Your task to perform on an android device: Open my contact list Image 0: 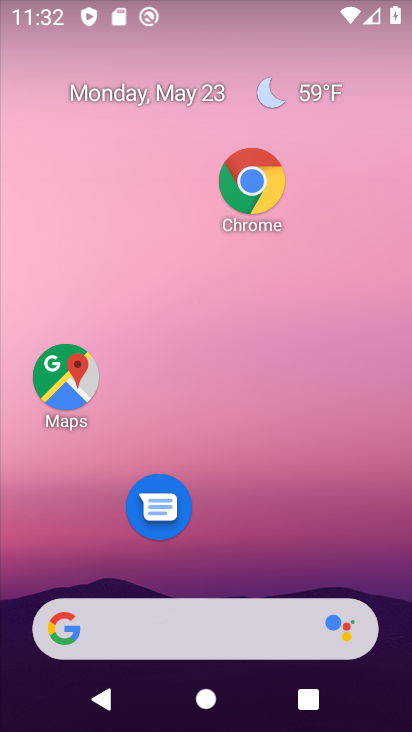
Step 0: drag from (263, 534) to (274, 207)
Your task to perform on an android device: Open my contact list Image 1: 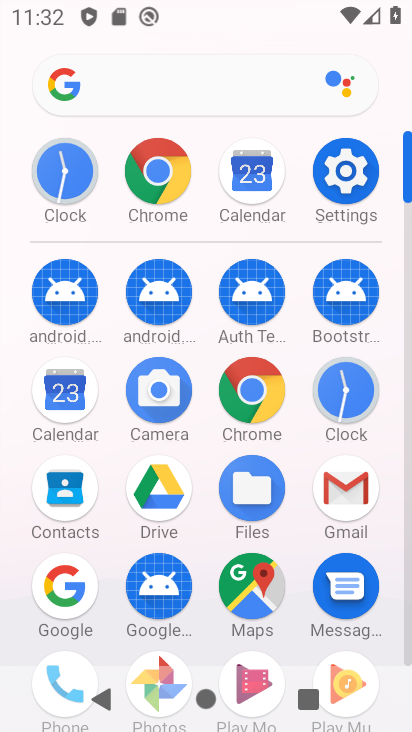
Step 1: drag from (202, 538) to (230, 327)
Your task to perform on an android device: Open my contact list Image 2: 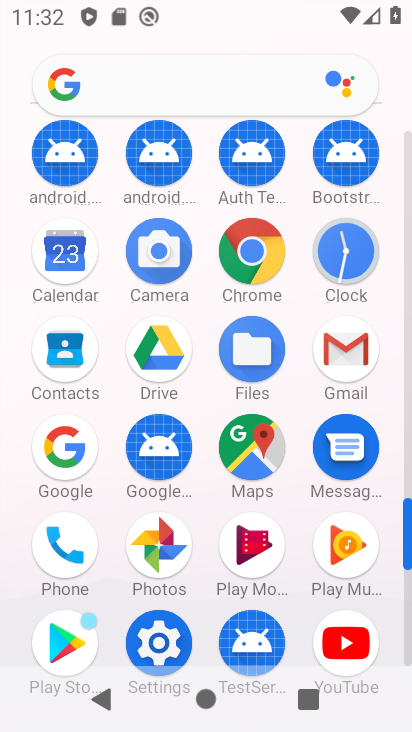
Step 2: click (152, 629)
Your task to perform on an android device: Open my contact list Image 3: 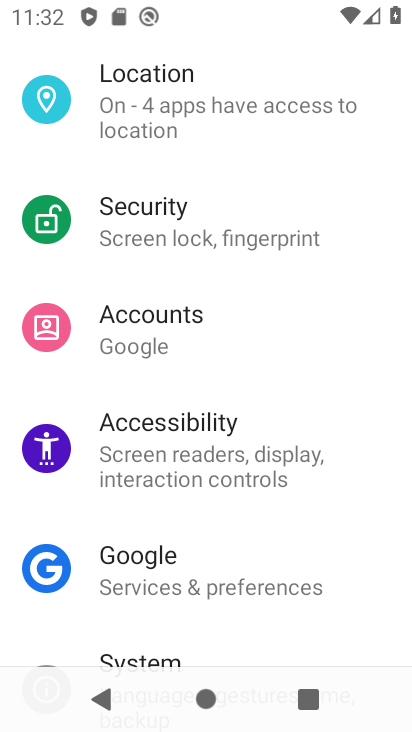
Step 3: press home button
Your task to perform on an android device: Open my contact list Image 4: 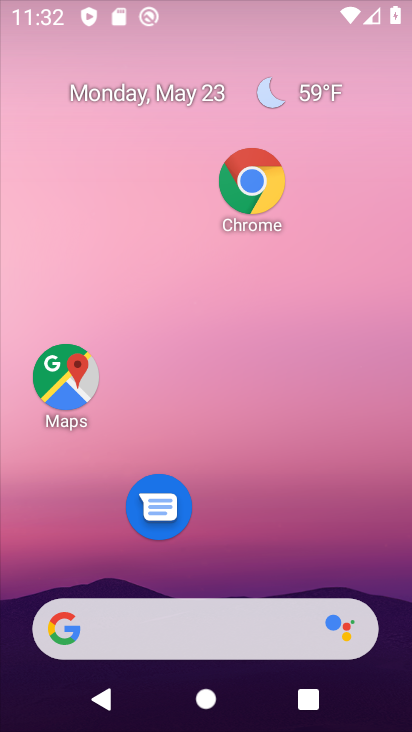
Step 4: drag from (235, 572) to (252, 346)
Your task to perform on an android device: Open my contact list Image 5: 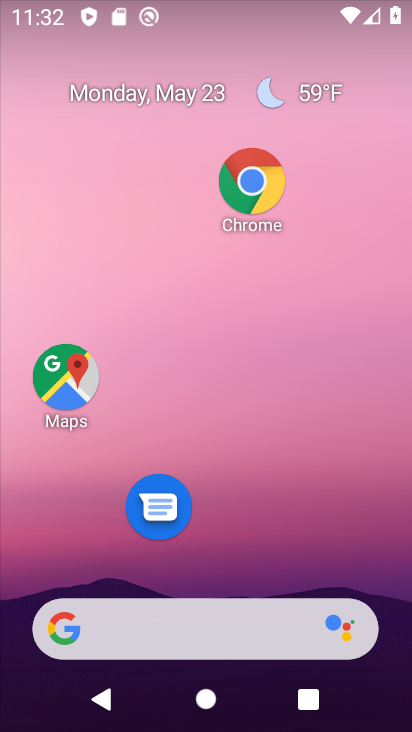
Step 5: drag from (286, 554) to (329, 259)
Your task to perform on an android device: Open my contact list Image 6: 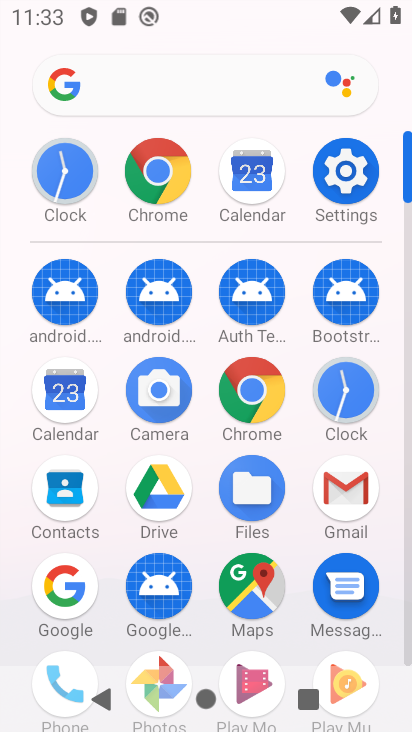
Step 6: drag from (183, 608) to (241, 244)
Your task to perform on an android device: Open my contact list Image 7: 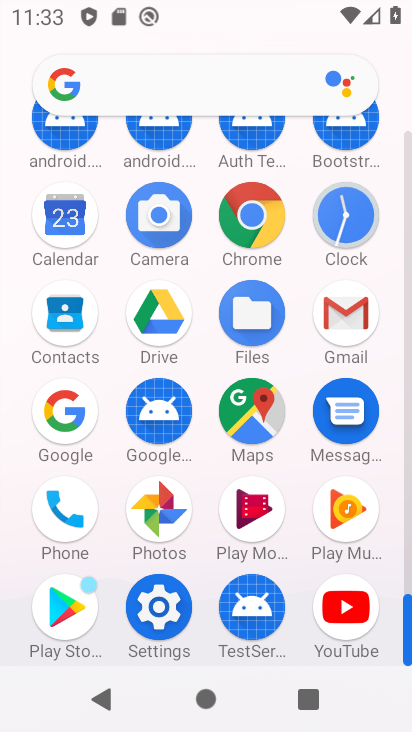
Step 7: click (48, 486)
Your task to perform on an android device: Open my contact list Image 8: 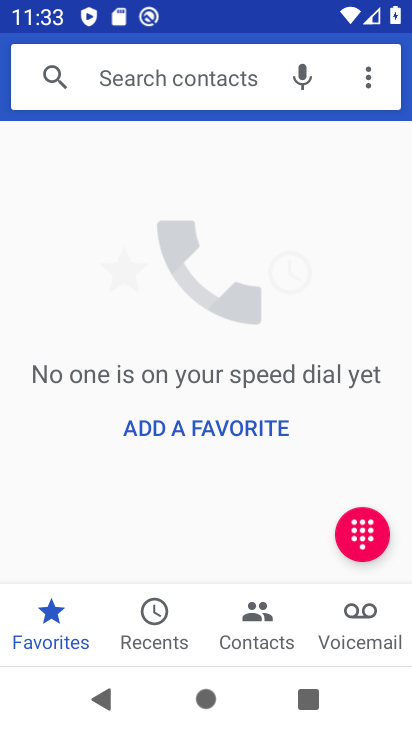
Step 8: drag from (344, 623) to (202, 479)
Your task to perform on an android device: Open my contact list Image 9: 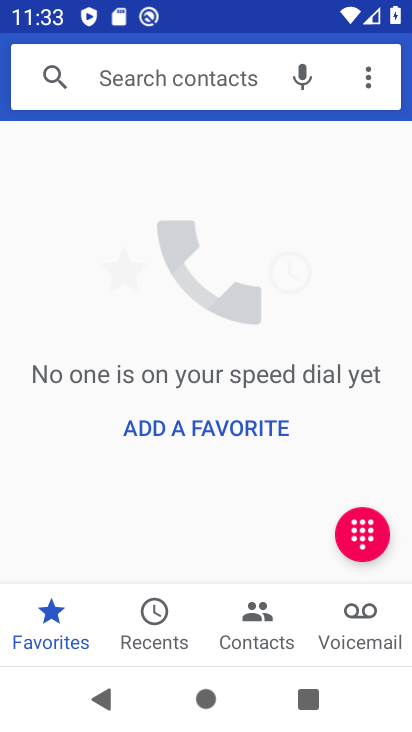
Step 9: click (243, 607)
Your task to perform on an android device: Open my contact list Image 10: 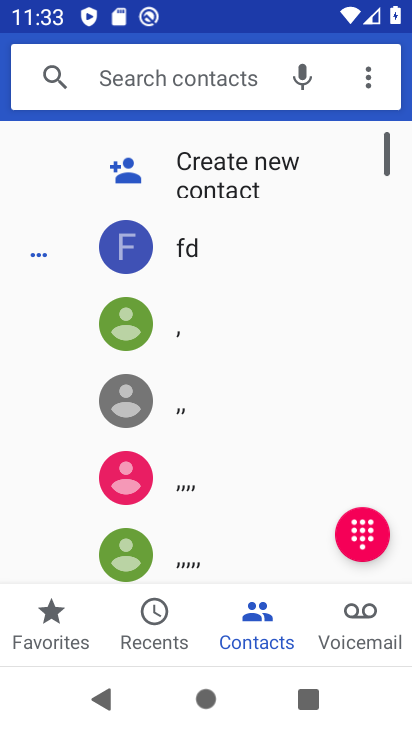
Step 10: task complete